Your task to perform on an android device: Open display settings Image 0: 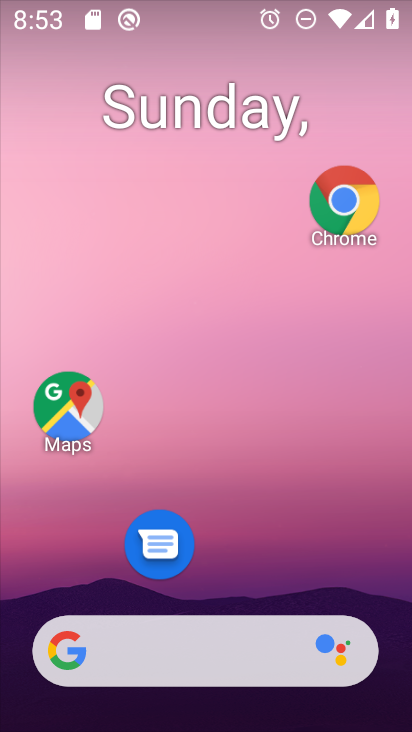
Step 0: drag from (210, 580) to (320, 7)
Your task to perform on an android device: Open display settings Image 1: 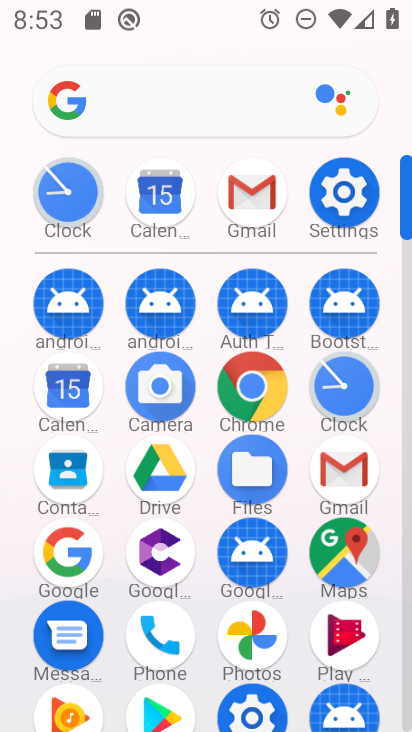
Step 1: click (339, 200)
Your task to perform on an android device: Open display settings Image 2: 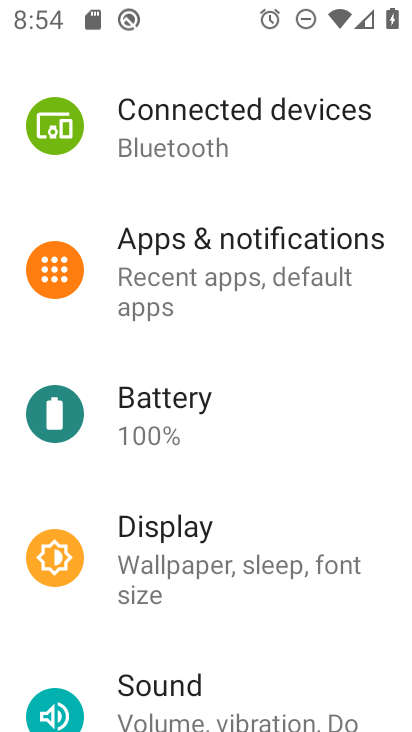
Step 2: click (155, 540)
Your task to perform on an android device: Open display settings Image 3: 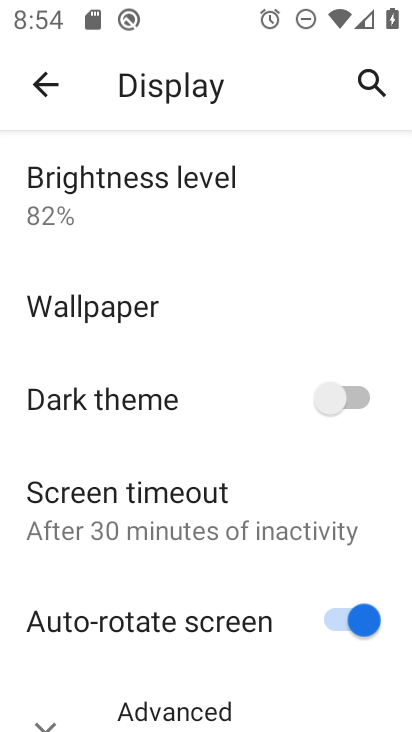
Step 3: task complete